Your task to perform on an android device: set the stopwatch Image 0: 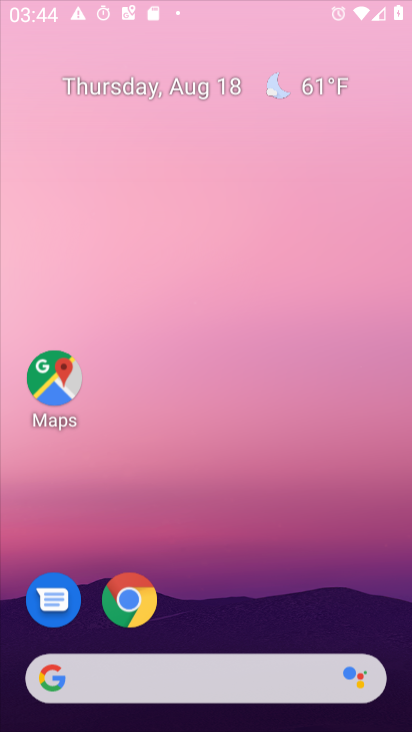
Step 0: press home button
Your task to perform on an android device: set the stopwatch Image 1: 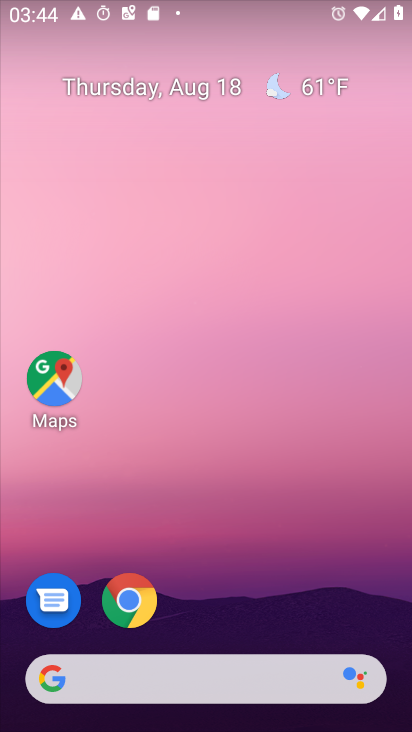
Step 1: drag from (214, 639) to (292, 27)
Your task to perform on an android device: set the stopwatch Image 2: 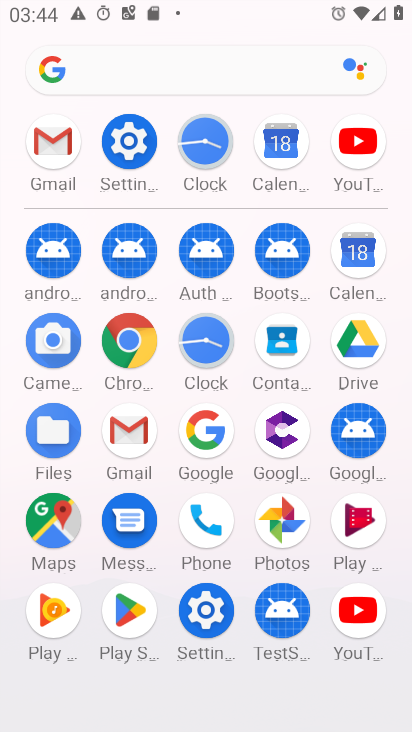
Step 2: click (208, 149)
Your task to perform on an android device: set the stopwatch Image 3: 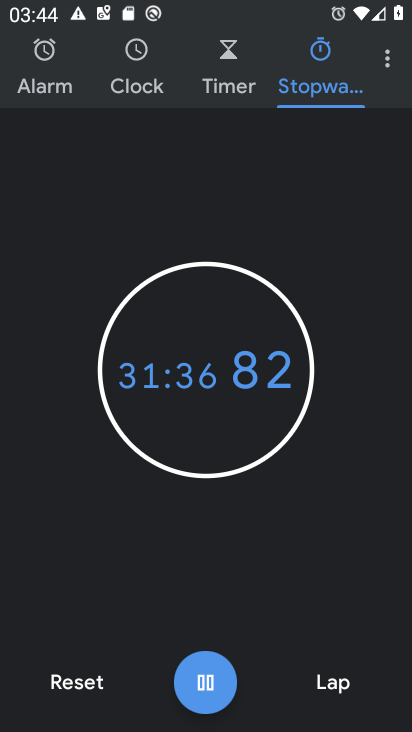
Step 3: task complete